Your task to perform on an android device: allow cookies in the chrome app Image 0: 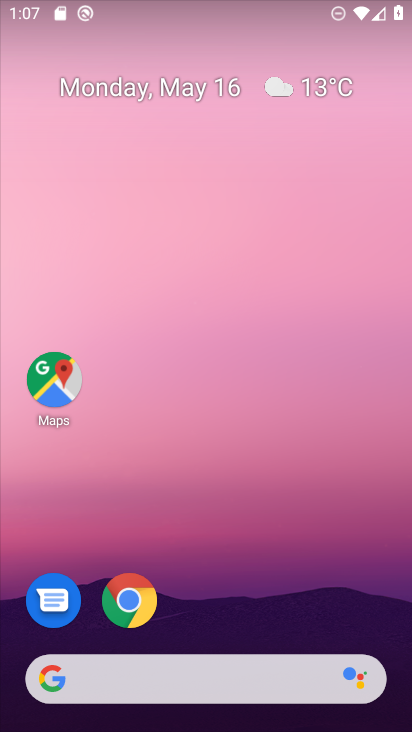
Step 0: click (130, 592)
Your task to perform on an android device: allow cookies in the chrome app Image 1: 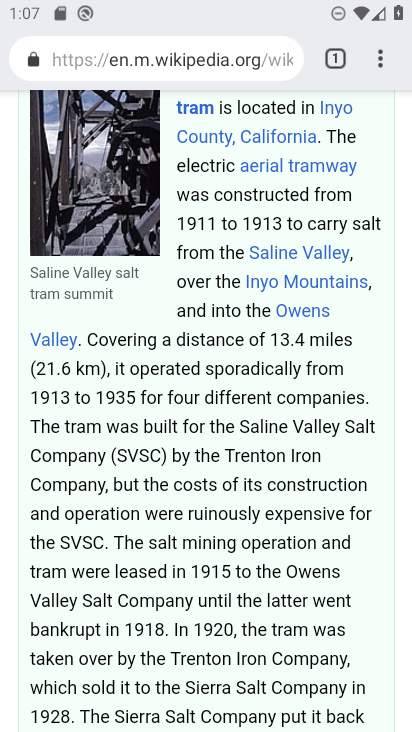
Step 1: click (384, 57)
Your task to perform on an android device: allow cookies in the chrome app Image 2: 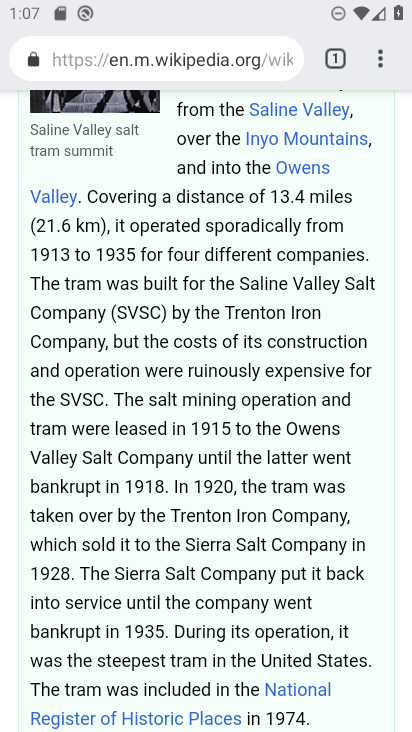
Step 2: click (384, 57)
Your task to perform on an android device: allow cookies in the chrome app Image 3: 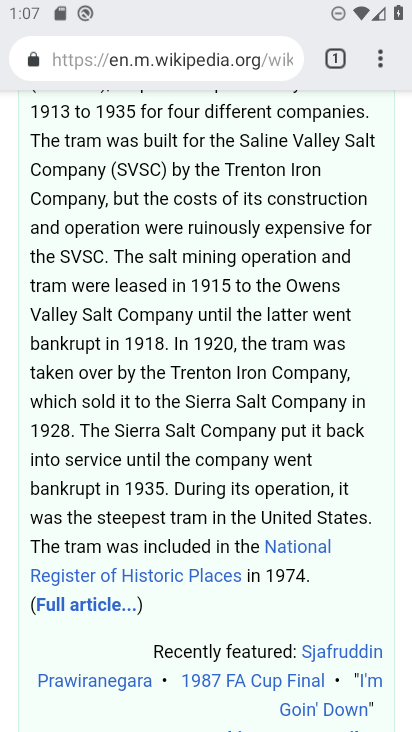
Step 3: click (377, 57)
Your task to perform on an android device: allow cookies in the chrome app Image 4: 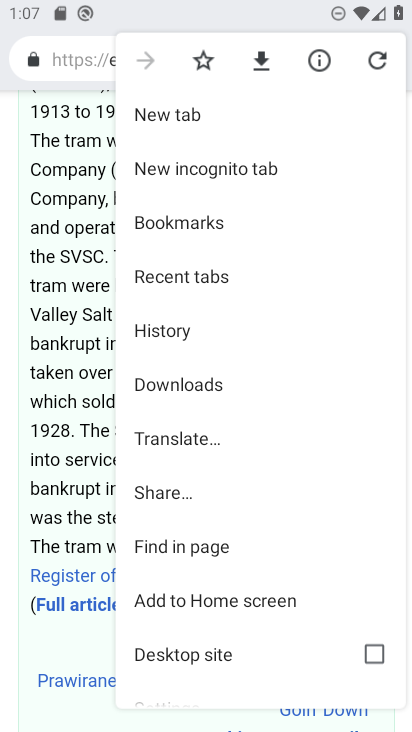
Step 4: drag from (249, 647) to (270, 119)
Your task to perform on an android device: allow cookies in the chrome app Image 5: 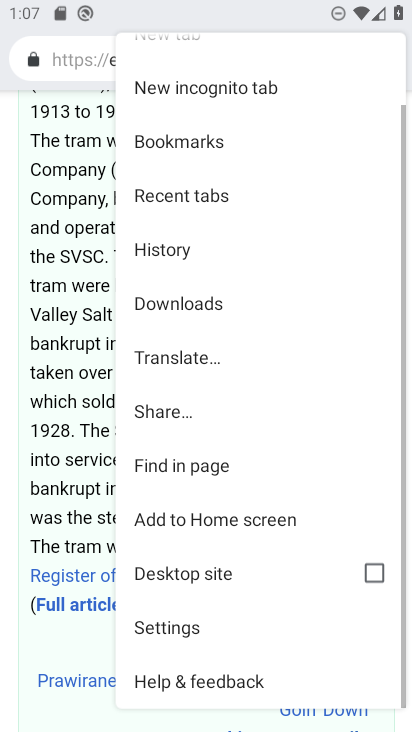
Step 5: click (209, 623)
Your task to perform on an android device: allow cookies in the chrome app Image 6: 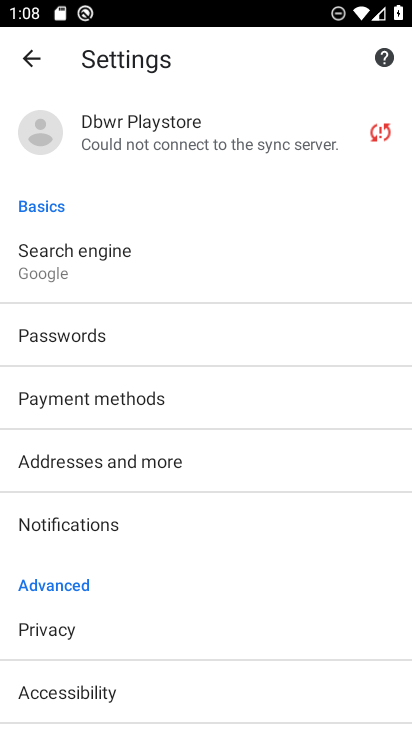
Step 6: drag from (227, 598) to (223, 87)
Your task to perform on an android device: allow cookies in the chrome app Image 7: 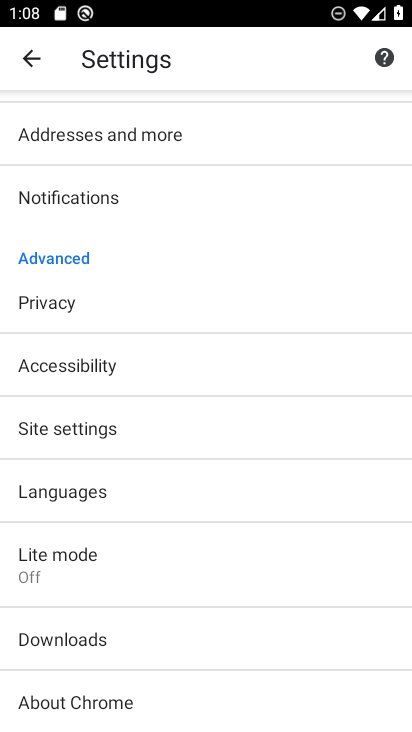
Step 7: click (148, 430)
Your task to perform on an android device: allow cookies in the chrome app Image 8: 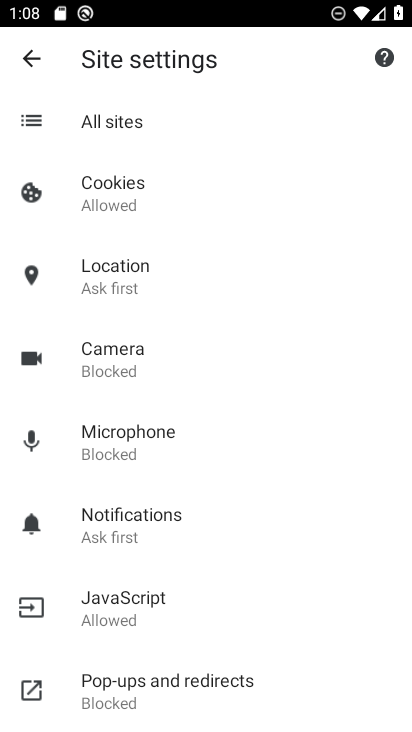
Step 8: click (153, 190)
Your task to perform on an android device: allow cookies in the chrome app Image 9: 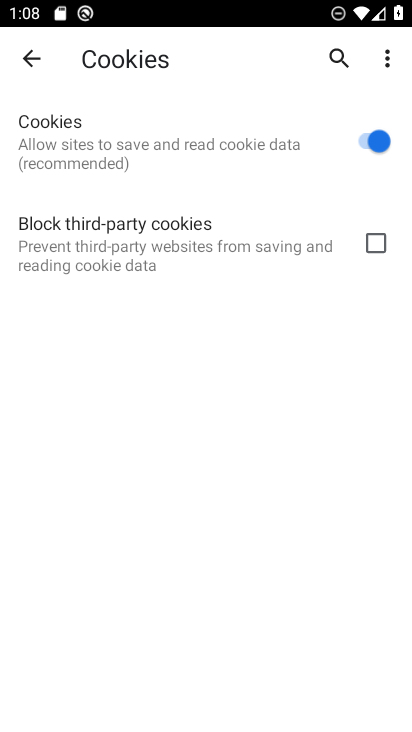
Step 9: task complete